Your task to perform on an android device: Search for seafood restaurants on Google Maps Image 0: 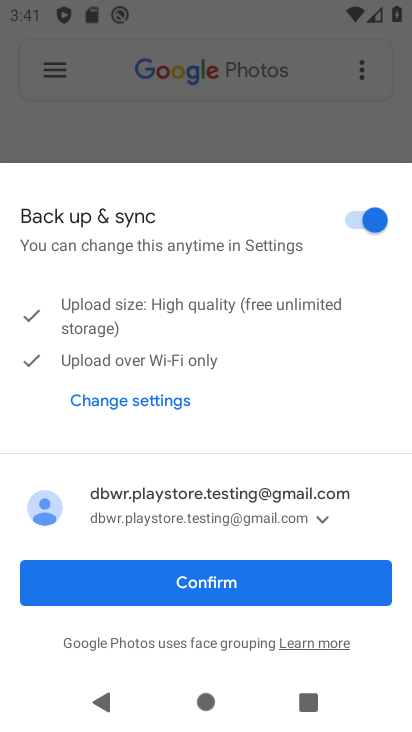
Step 0: press home button
Your task to perform on an android device: Search for seafood restaurants on Google Maps Image 1: 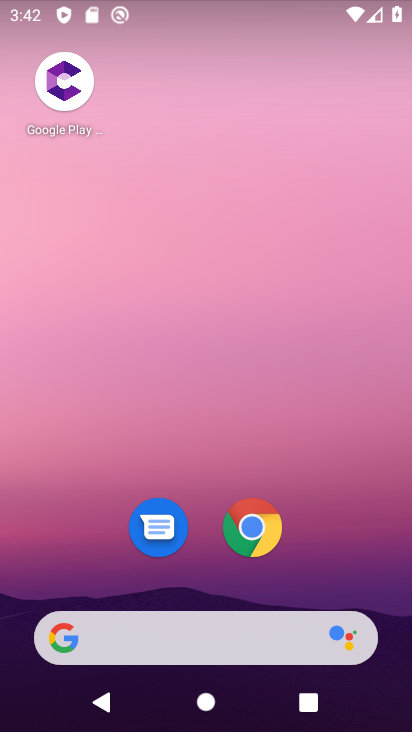
Step 1: drag from (179, 591) to (150, 86)
Your task to perform on an android device: Search for seafood restaurants on Google Maps Image 2: 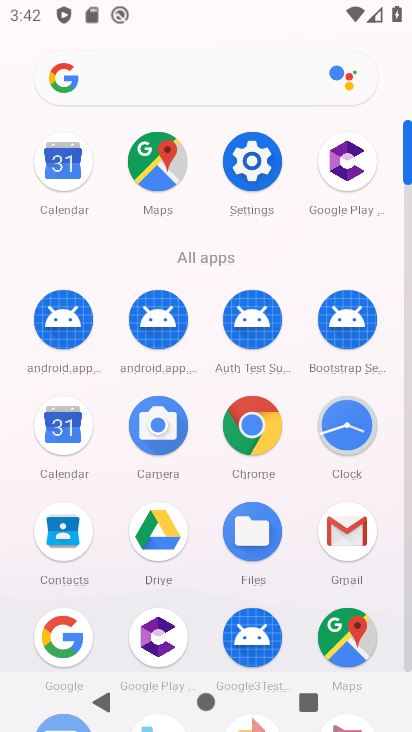
Step 2: click (339, 631)
Your task to perform on an android device: Search for seafood restaurants on Google Maps Image 3: 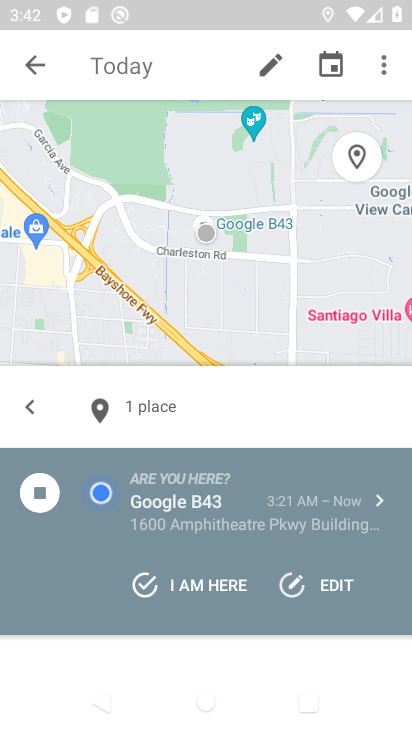
Step 3: click (45, 65)
Your task to perform on an android device: Search for seafood restaurants on Google Maps Image 4: 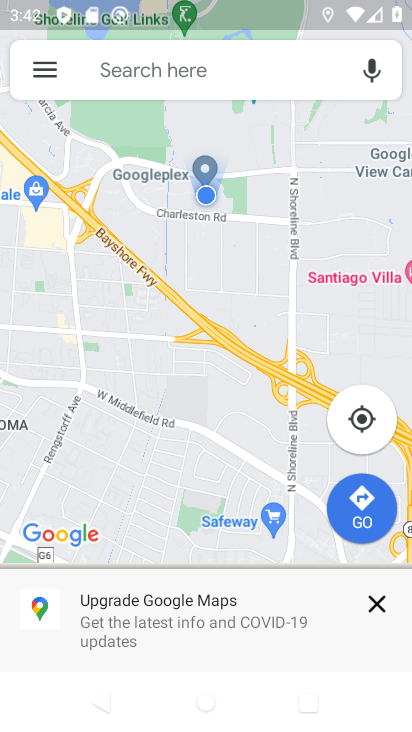
Step 4: click (99, 57)
Your task to perform on an android device: Search for seafood restaurants on Google Maps Image 5: 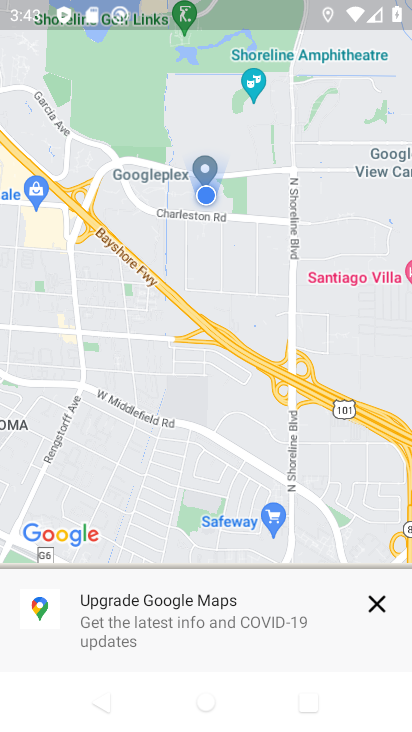
Step 5: drag from (179, 137) to (162, 413)
Your task to perform on an android device: Search for seafood restaurants on Google Maps Image 6: 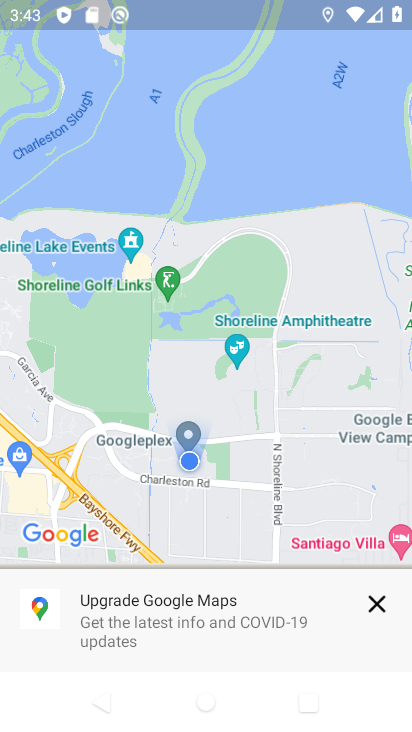
Step 6: click (154, 94)
Your task to perform on an android device: Search for seafood restaurants on Google Maps Image 7: 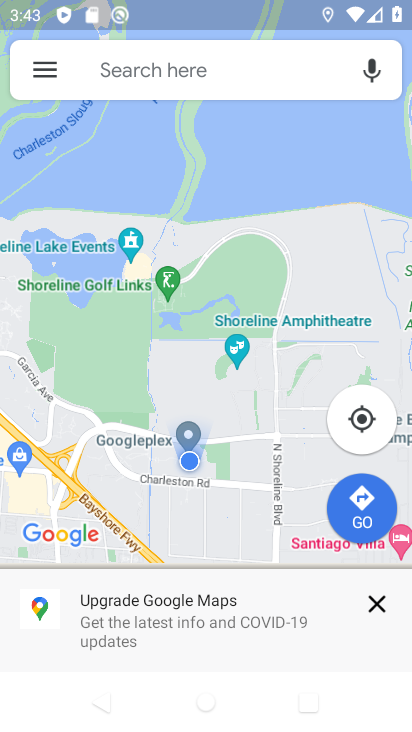
Step 7: click (165, 66)
Your task to perform on an android device: Search for seafood restaurants on Google Maps Image 8: 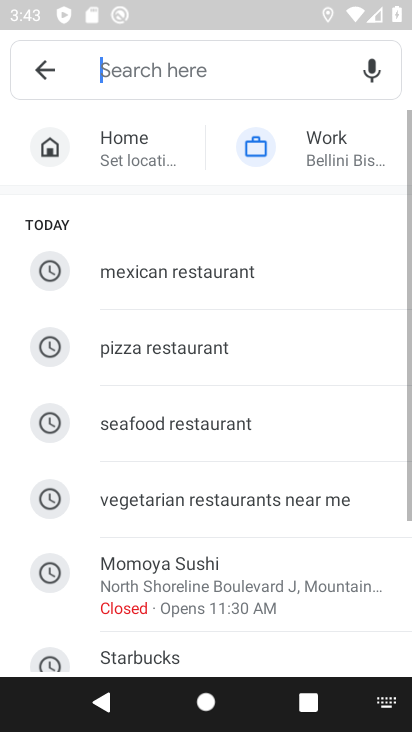
Step 8: click (168, 423)
Your task to perform on an android device: Search for seafood restaurants on Google Maps Image 9: 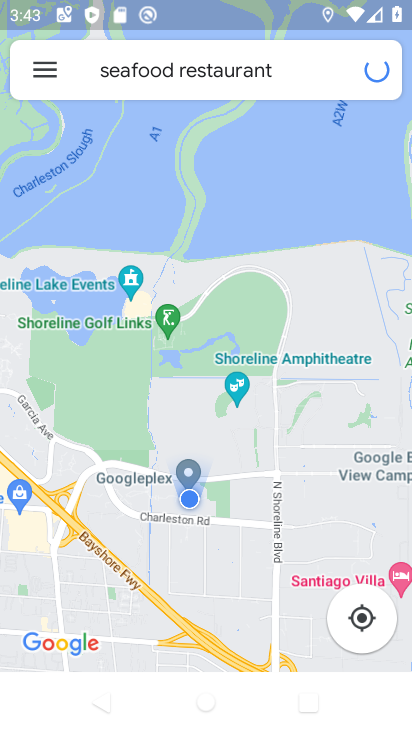
Step 9: task complete